Your task to perform on an android device: turn on notifications settings in the gmail app Image 0: 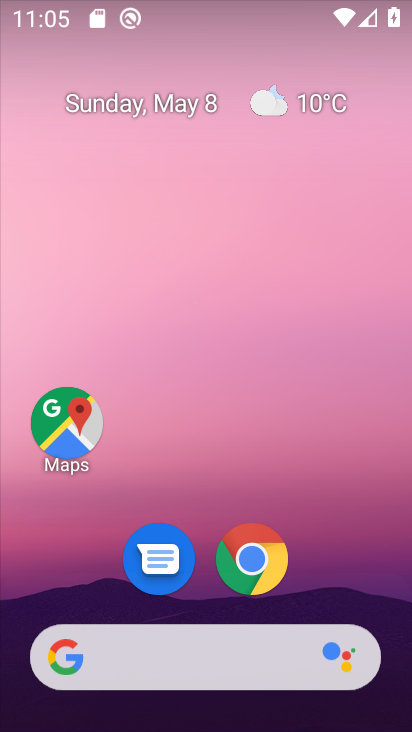
Step 0: drag from (191, 595) to (238, 132)
Your task to perform on an android device: turn on notifications settings in the gmail app Image 1: 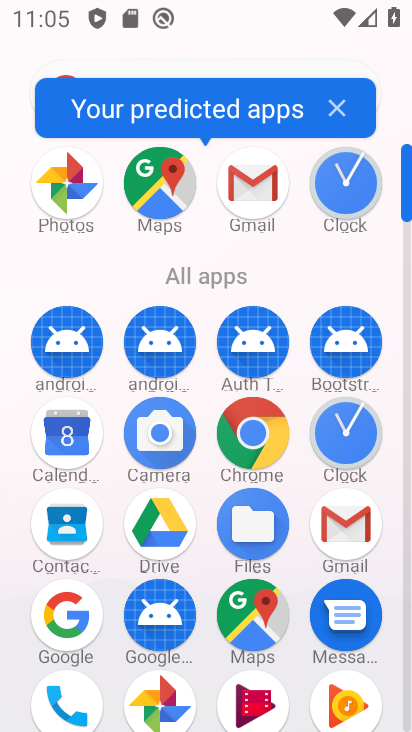
Step 1: click (338, 549)
Your task to perform on an android device: turn on notifications settings in the gmail app Image 2: 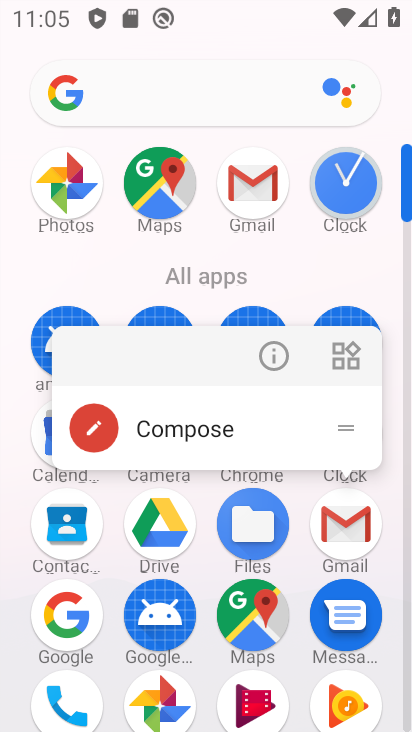
Step 2: click (336, 535)
Your task to perform on an android device: turn on notifications settings in the gmail app Image 3: 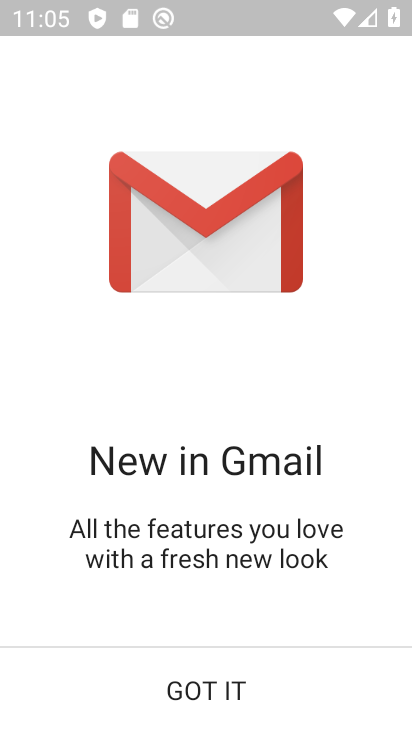
Step 3: click (238, 677)
Your task to perform on an android device: turn on notifications settings in the gmail app Image 4: 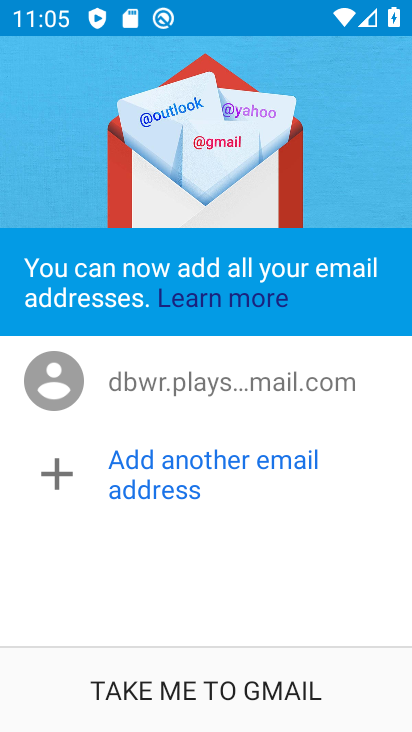
Step 4: click (149, 683)
Your task to perform on an android device: turn on notifications settings in the gmail app Image 5: 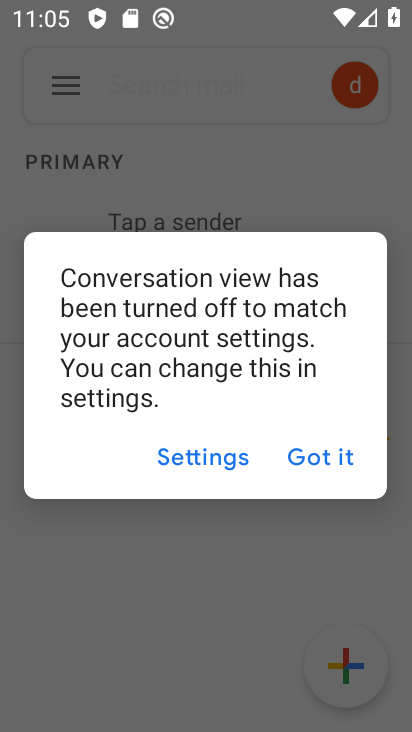
Step 5: click (347, 467)
Your task to perform on an android device: turn on notifications settings in the gmail app Image 6: 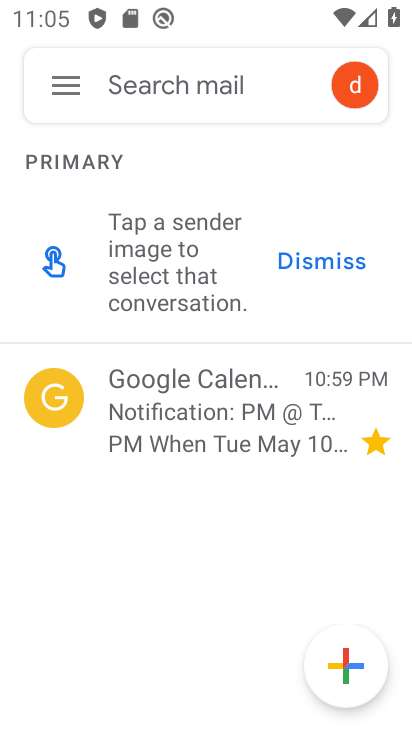
Step 6: click (51, 82)
Your task to perform on an android device: turn on notifications settings in the gmail app Image 7: 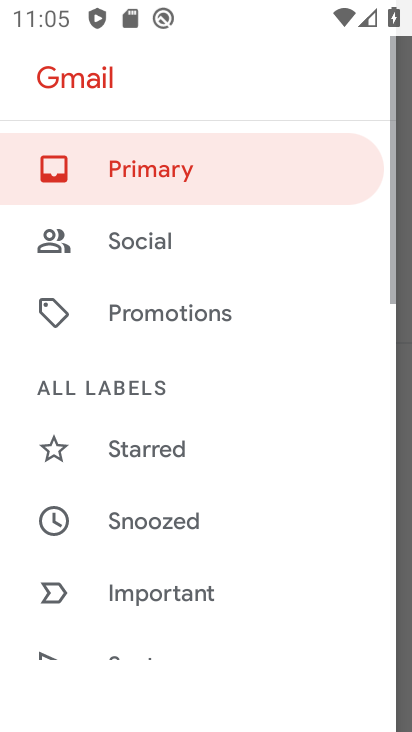
Step 7: drag from (116, 606) to (194, 172)
Your task to perform on an android device: turn on notifications settings in the gmail app Image 8: 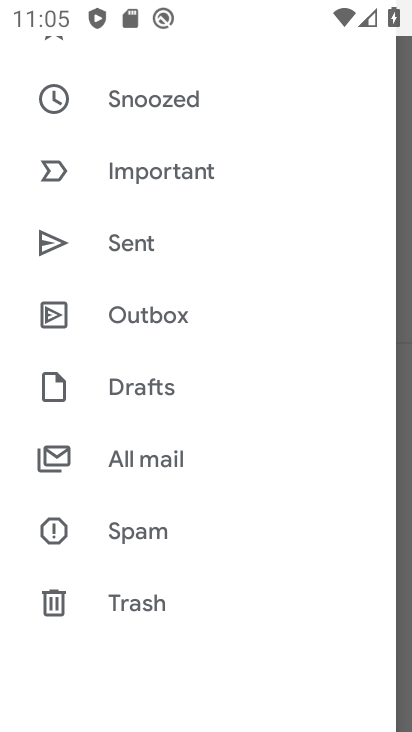
Step 8: drag from (161, 545) to (204, 136)
Your task to perform on an android device: turn on notifications settings in the gmail app Image 9: 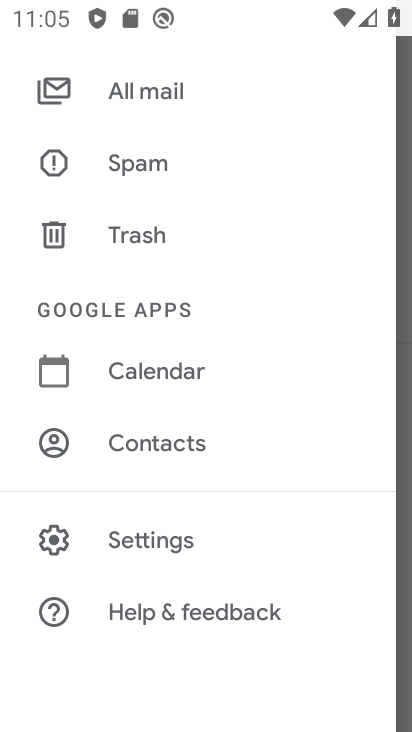
Step 9: drag from (155, 577) to (176, 263)
Your task to perform on an android device: turn on notifications settings in the gmail app Image 10: 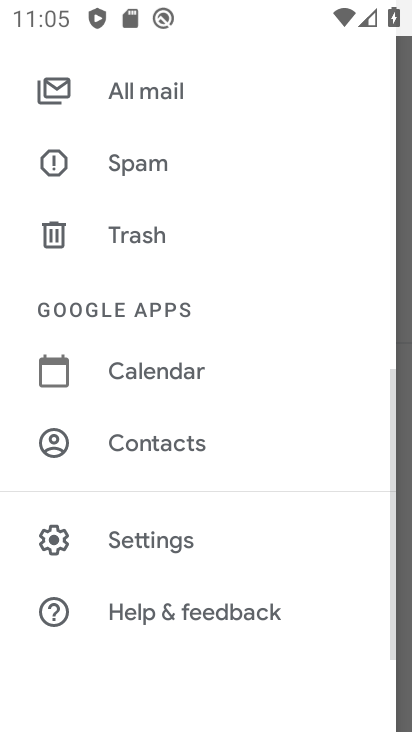
Step 10: click (181, 541)
Your task to perform on an android device: turn on notifications settings in the gmail app Image 11: 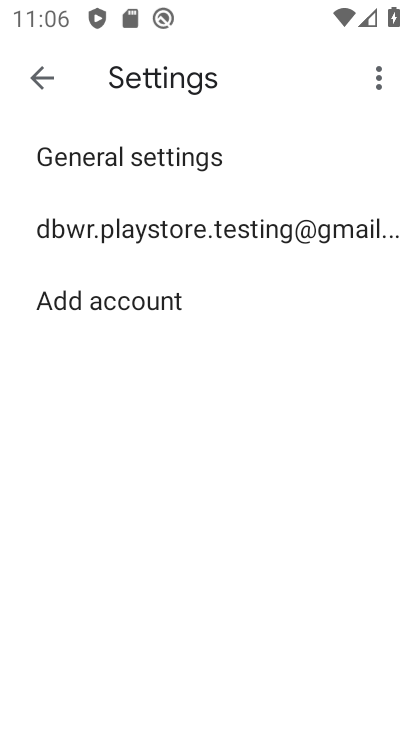
Step 11: click (171, 163)
Your task to perform on an android device: turn on notifications settings in the gmail app Image 12: 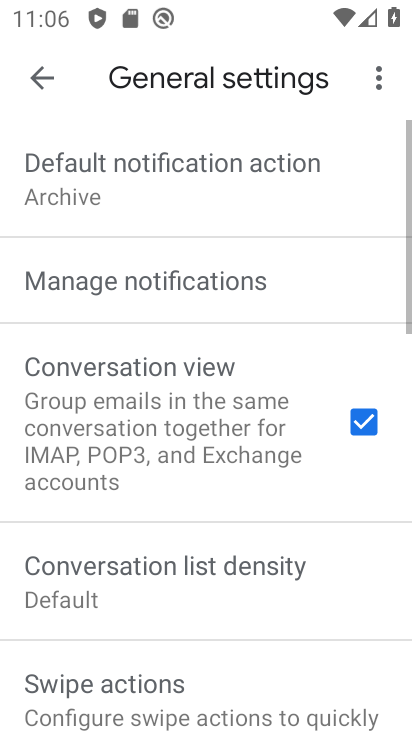
Step 12: click (171, 289)
Your task to perform on an android device: turn on notifications settings in the gmail app Image 13: 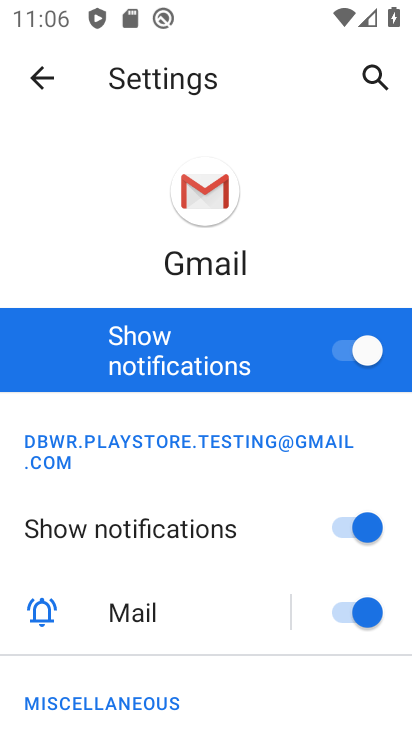
Step 13: task complete